Your task to perform on an android device: turn off wifi Image 0: 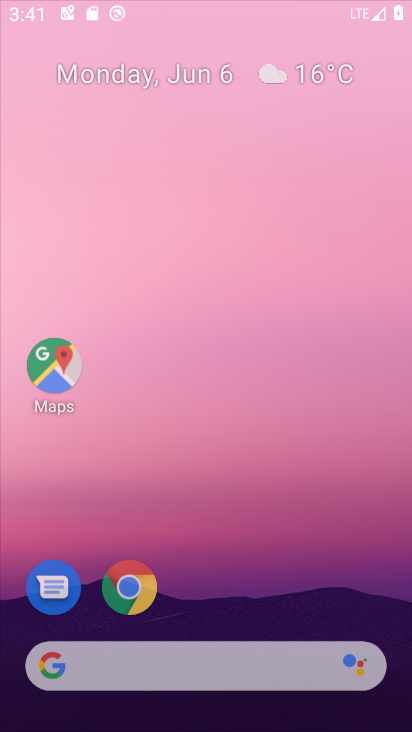
Step 0: click (21, 60)
Your task to perform on an android device: turn off wifi Image 1: 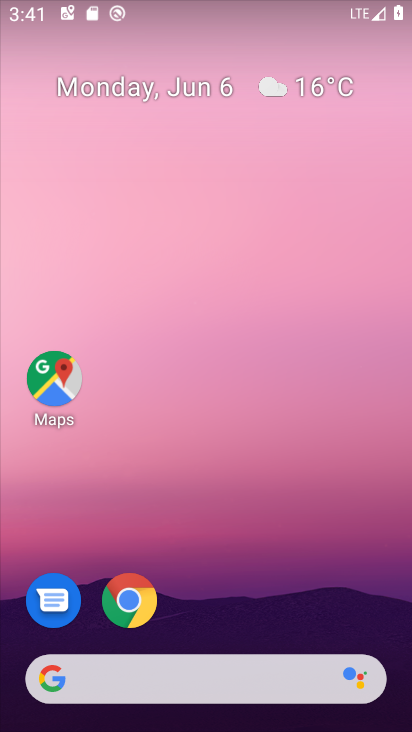
Step 1: drag from (303, 694) to (193, 160)
Your task to perform on an android device: turn off wifi Image 2: 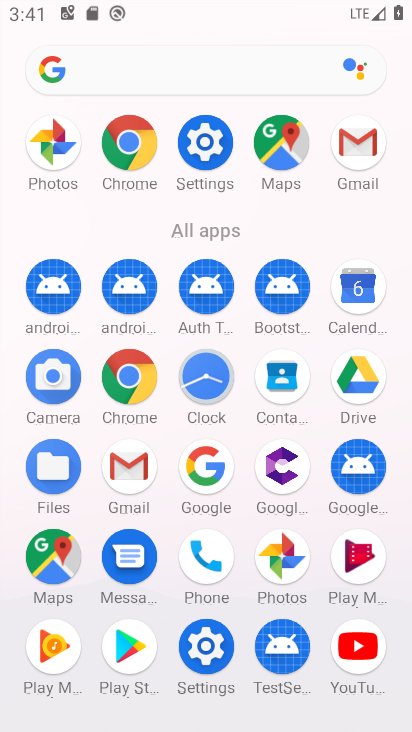
Step 2: click (194, 138)
Your task to perform on an android device: turn off wifi Image 3: 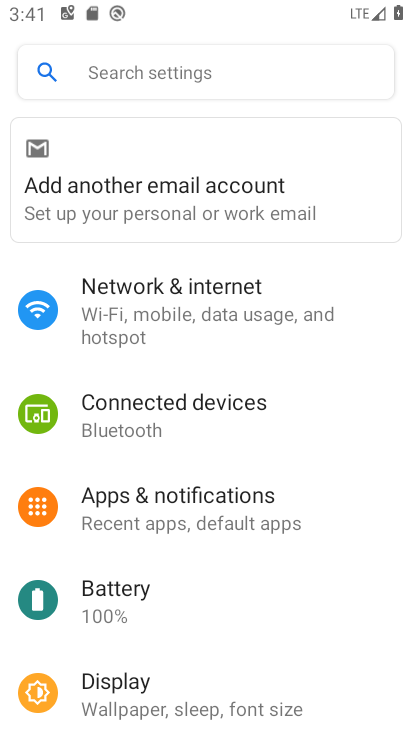
Step 3: click (153, 300)
Your task to perform on an android device: turn off wifi Image 4: 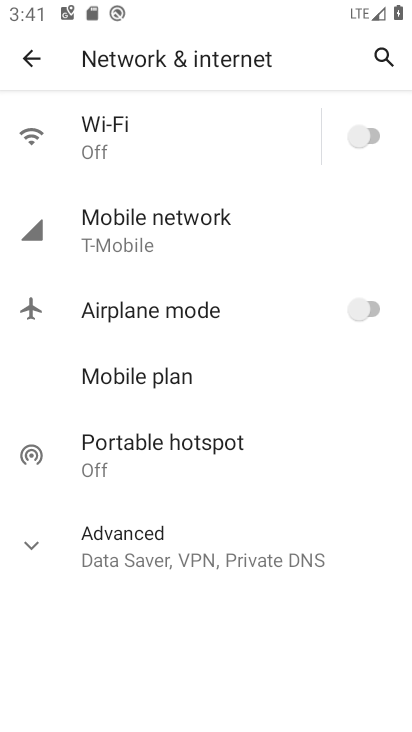
Step 4: click (358, 139)
Your task to perform on an android device: turn off wifi Image 5: 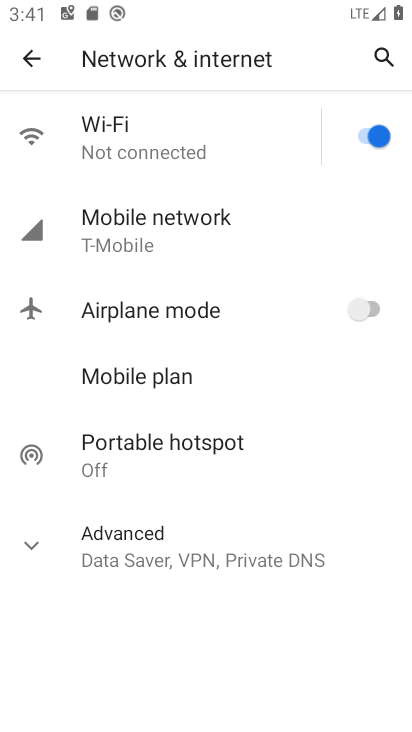
Step 5: click (358, 139)
Your task to perform on an android device: turn off wifi Image 6: 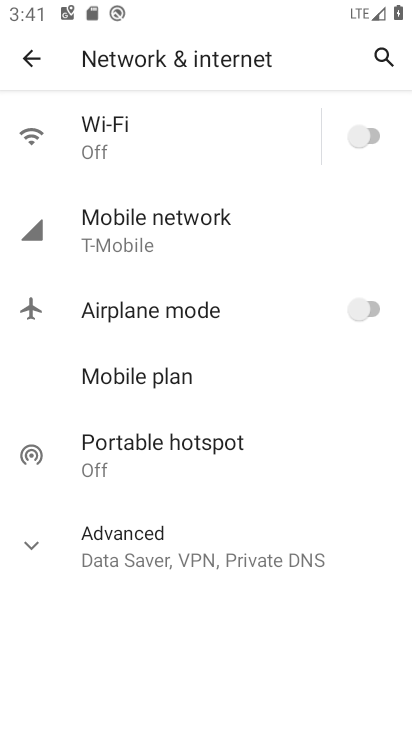
Step 6: task complete